Your task to perform on an android device: Do I have any events this weekend? Image 0: 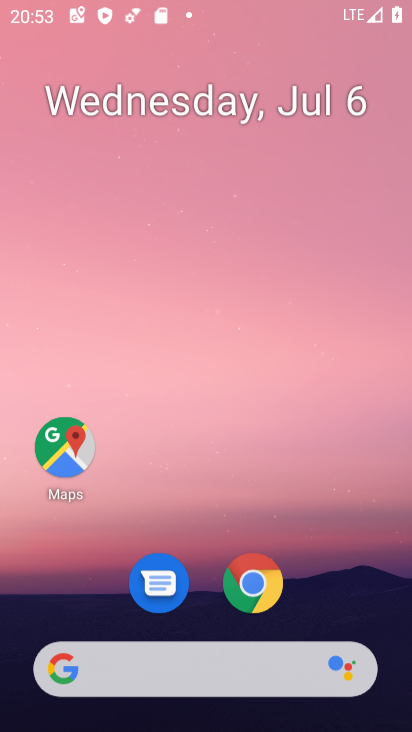
Step 0: drag from (210, 512) to (289, 66)
Your task to perform on an android device: Do I have any events this weekend? Image 1: 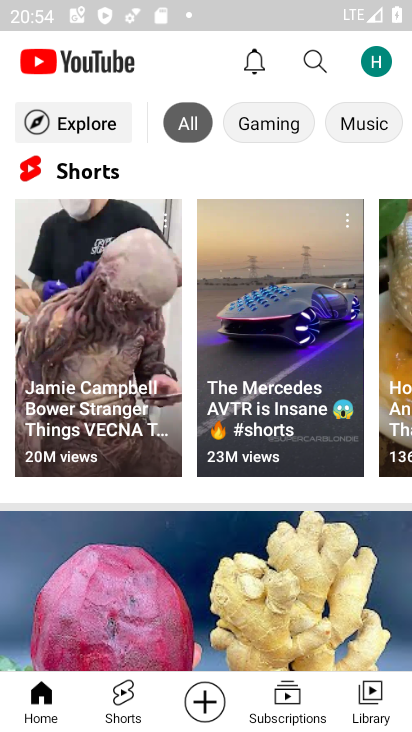
Step 1: press home button
Your task to perform on an android device: Do I have any events this weekend? Image 2: 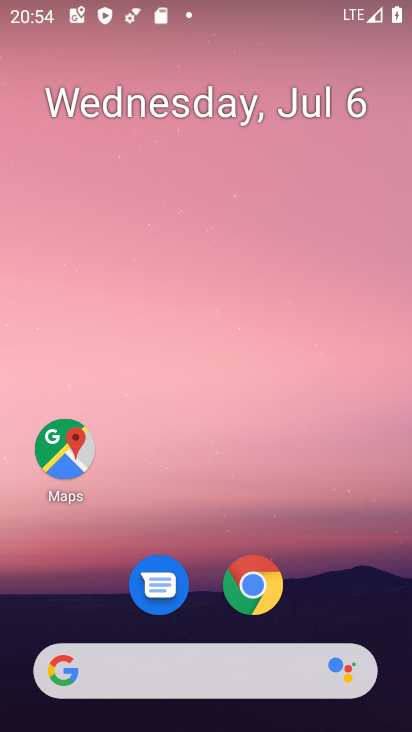
Step 2: drag from (216, 498) to (180, 0)
Your task to perform on an android device: Do I have any events this weekend? Image 3: 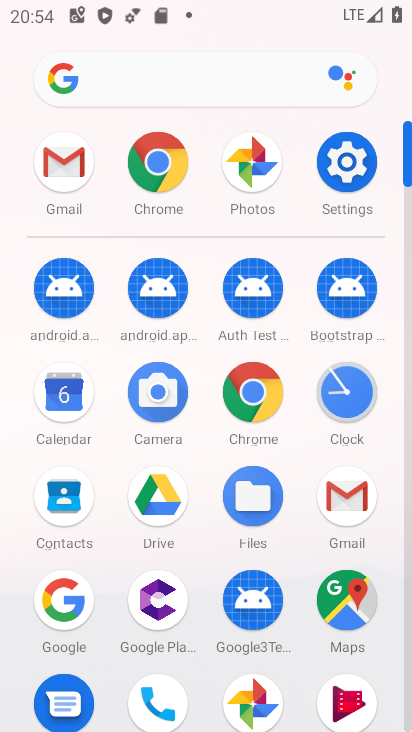
Step 3: click (62, 392)
Your task to perform on an android device: Do I have any events this weekend? Image 4: 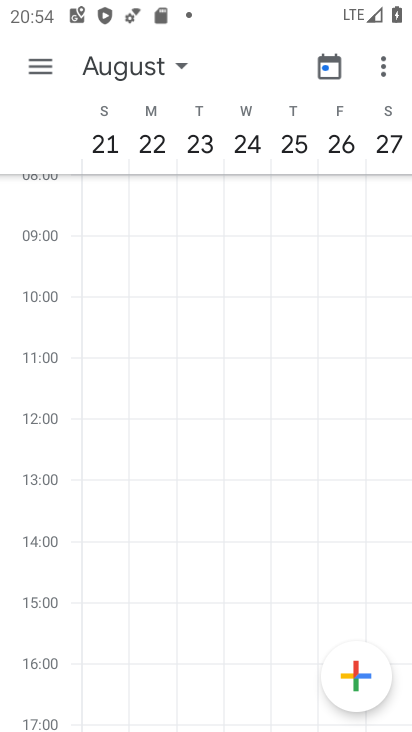
Step 4: click (37, 59)
Your task to perform on an android device: Do I have any events this weekend? Image 5: 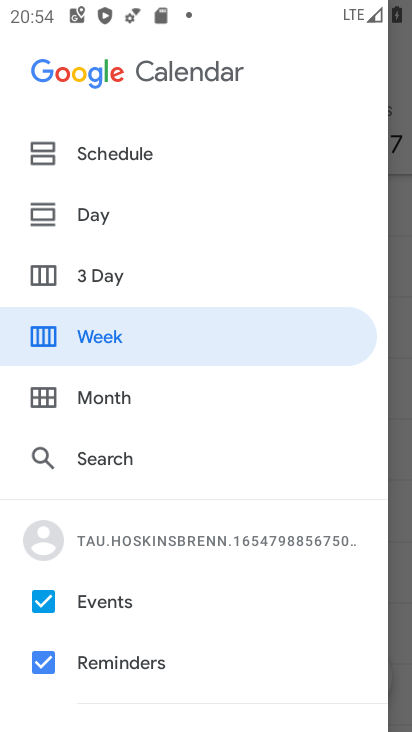
Step 5: click (41, 387)
Your task to perform on an android device: Do I have any events this weekend? Image 6: 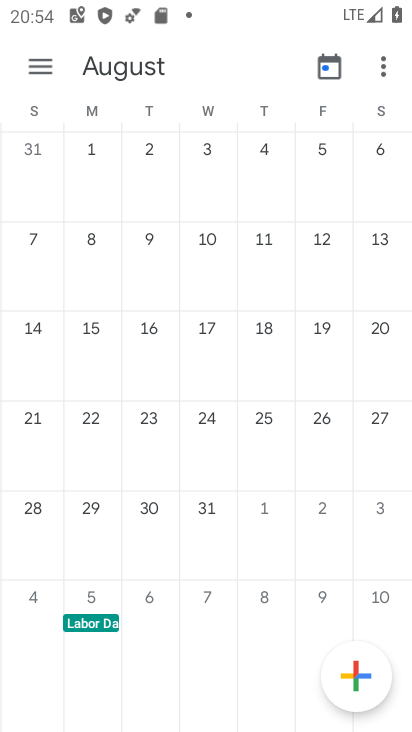
Step 6: drag from (110, 385) to (410, 291)
Your task to perform on an android device: Do I have any events this weekend? Image 7: 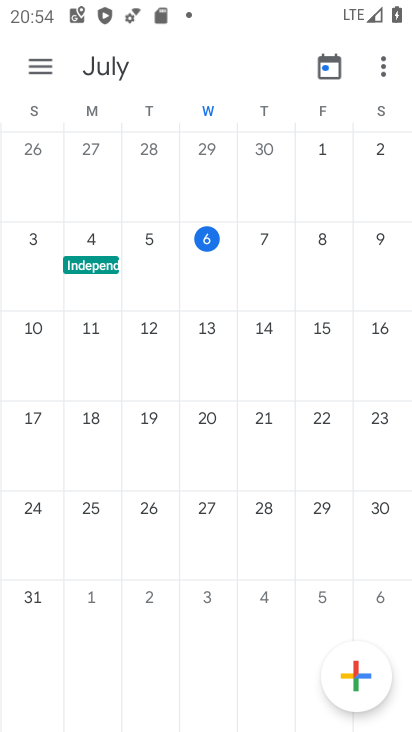
Step 7: click (384, 241)
Your task to perform on an android device: Do I have any events this weekend? Image 8: 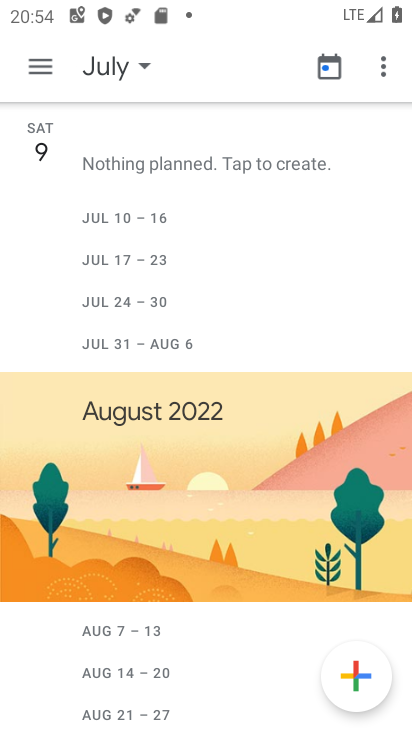
Step 8: task complete